Your task to perform on an android device: change your default location settings in chrome Image 0: 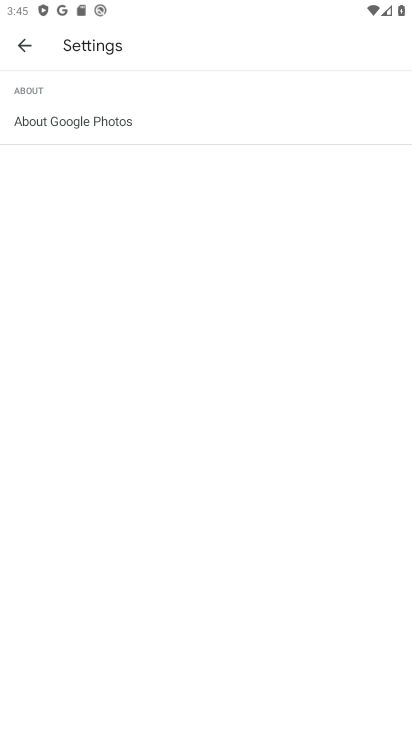
Step 0: press home button
Your task to perform on an android device: change your default location settings in chrome Image 1: 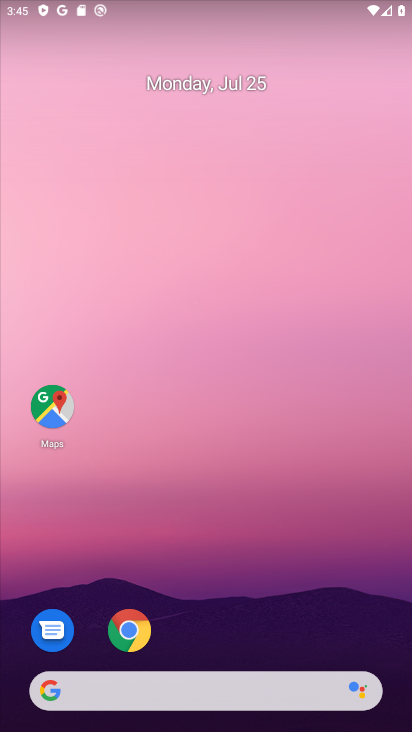
Step 1: click (128, 632)
Your task to perform on an android device: change your default location settings in chrome Image 2: 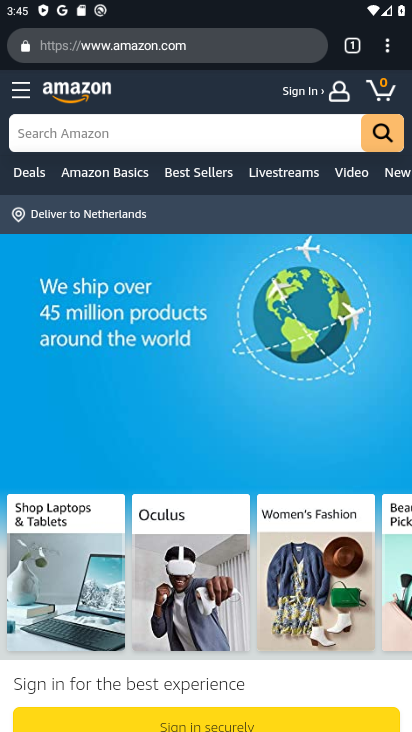
Step 2: click (388, 46)
Your task to perform on an android device: change your default location settings in chrome Image 3: 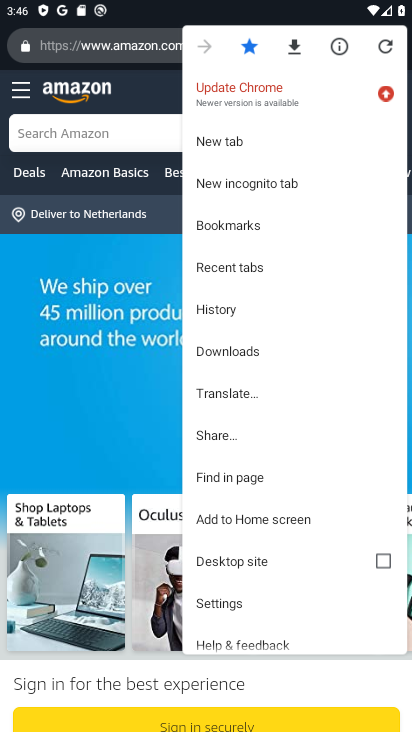
Step 3: click (227, 609)
Your task to perform on an android device: change your default location settings in chrome Image 4: 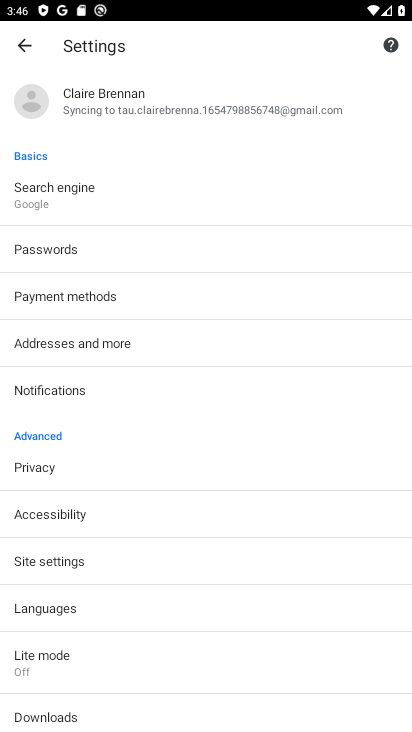
Step 4: click (41, 559)
Your task to perform on an android device: change your default location settings in chrome Image 5: 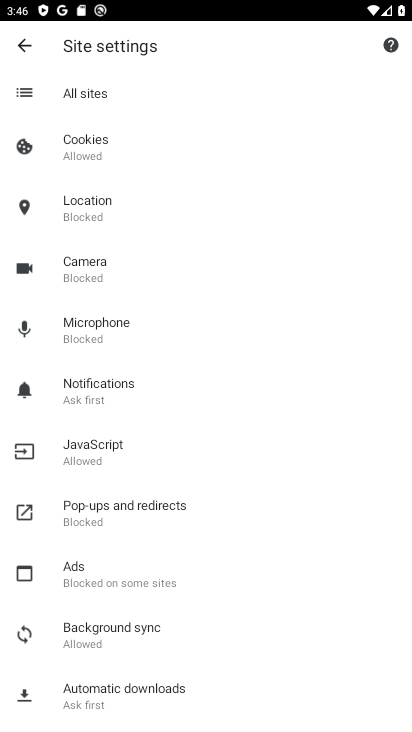
Step 5: click (92, 219)
Your task to perform on an android device: change your default location settings in chrome Image 6: 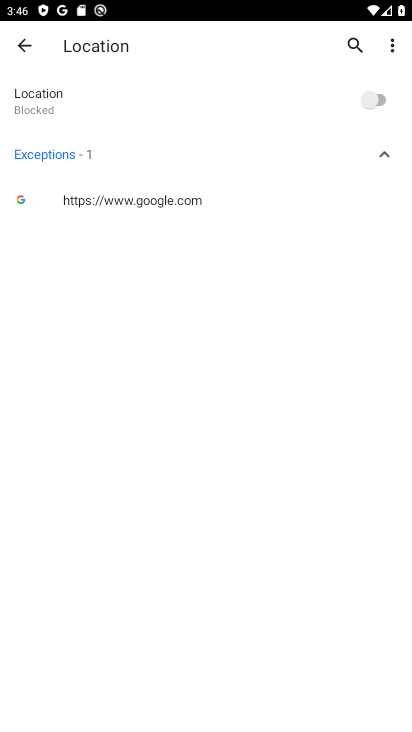
Step 6: click (372, 100)
Your task to perform on an android device: change your default location settings in chrome Image 7: 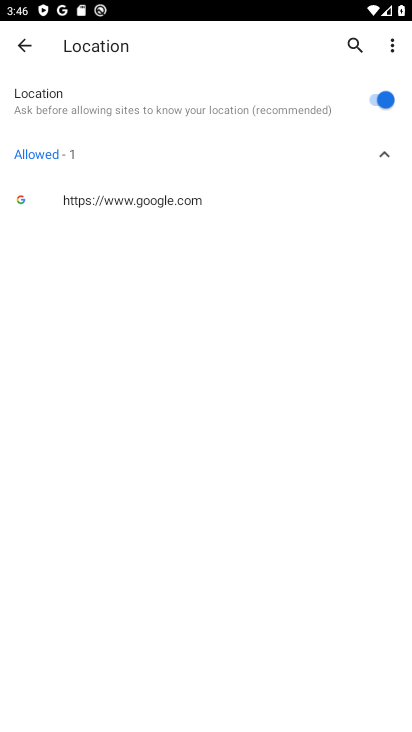
Step 7: task complete